Your task to perform on an android device: Is it going to rain this weekend? Image 0: 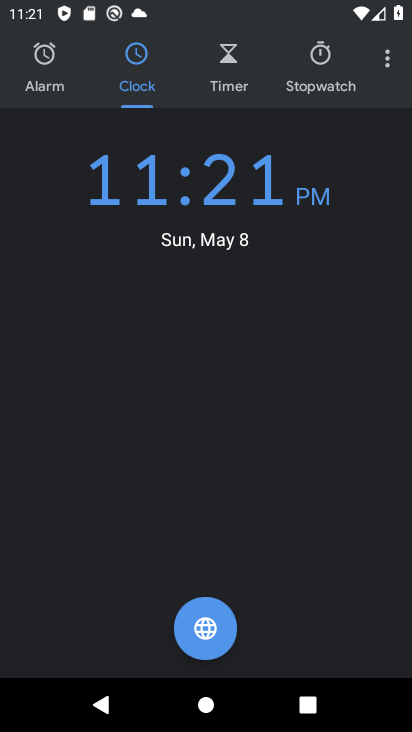
Step 0: press home button
Your task to perform on an android device: Is it going to rain this weekend? Image 1: 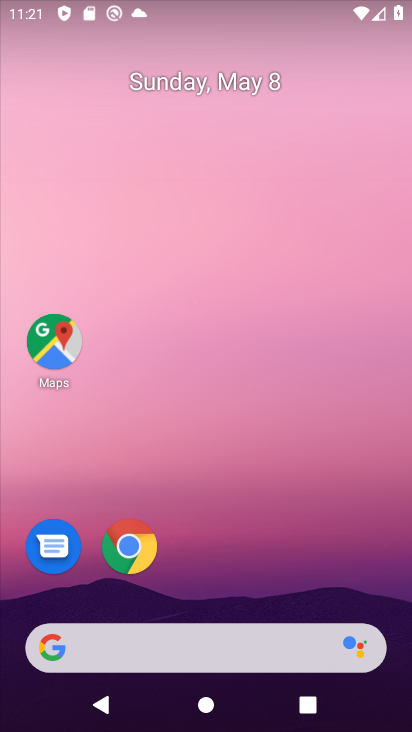
Step 1: click (126, 555)
Your task to perform on an android device: Is it going to rain this weekend? Image 2: 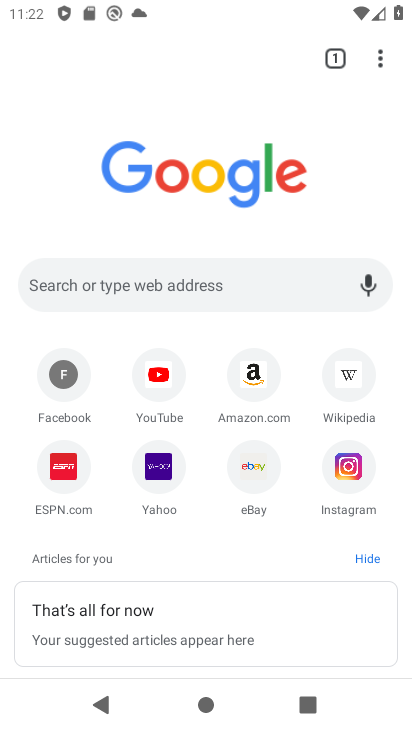
Step 2: click (154, 274)
Your task to perform on an android device: Is it going to rain this weekend? Image 3: 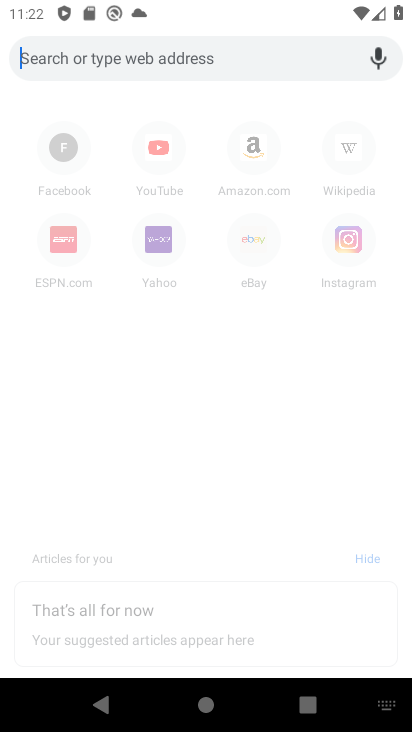
Step 3: type "is it going to rain this weekend"
Your task to perform on an android device: Is it going to rain this weekend? Image 4: 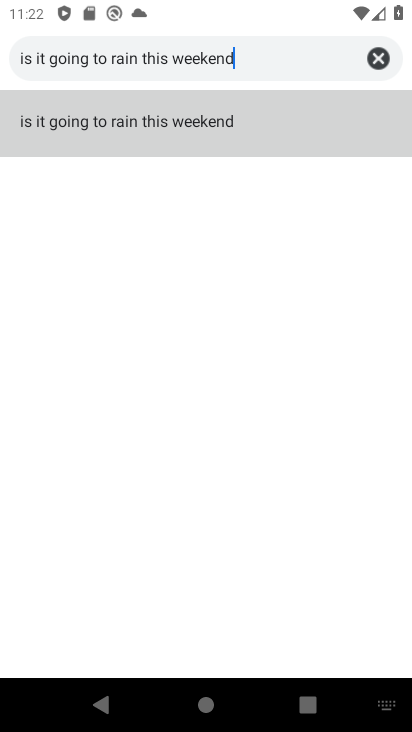
Step 4: click (136, 140)
Your task to perform on an android device: Is it going to rain this weekend? Image 5: 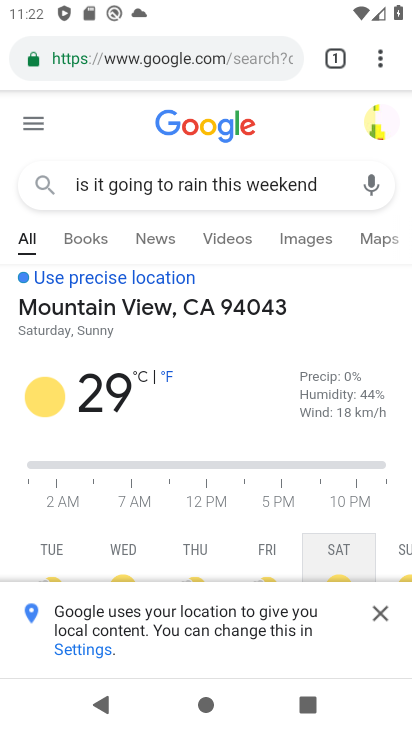
Step 5: task complete